Your task to perform on an android device: toggle pop-ups in chrome Image 0: 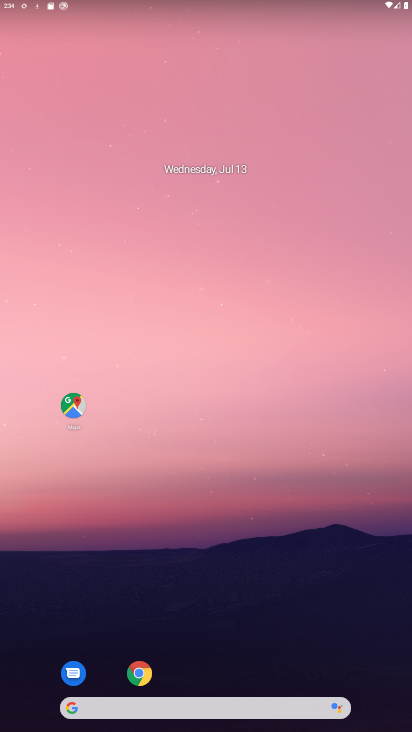
Step 0: click (150, 684)
Your task to perform on an android device: toggle pop-ups in chrome Image 1: 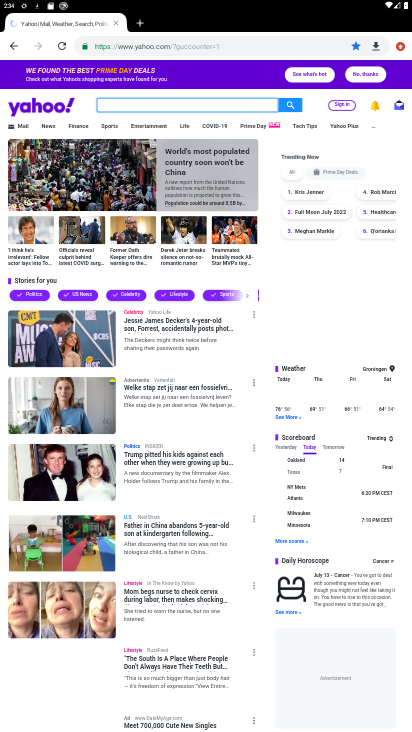
Step 1: drag from (397, 46) to (346, 326)
Your task to perform on an android device: toggle pop-ups in chrome Image 2: 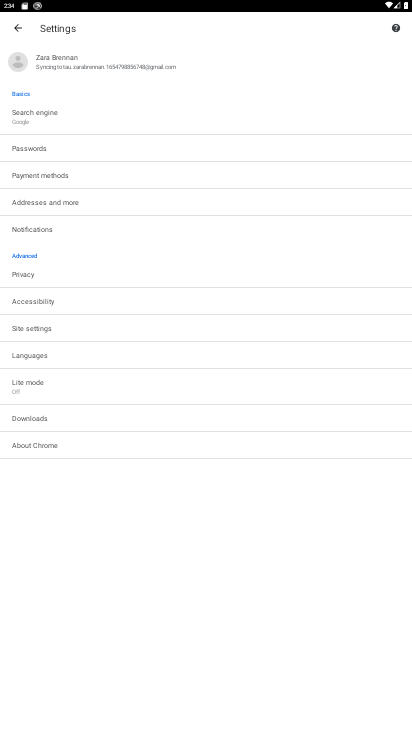
Step 2: click (74, 322)
Your task to perform on an android device: toggle pop-ups in chrome Image 3: 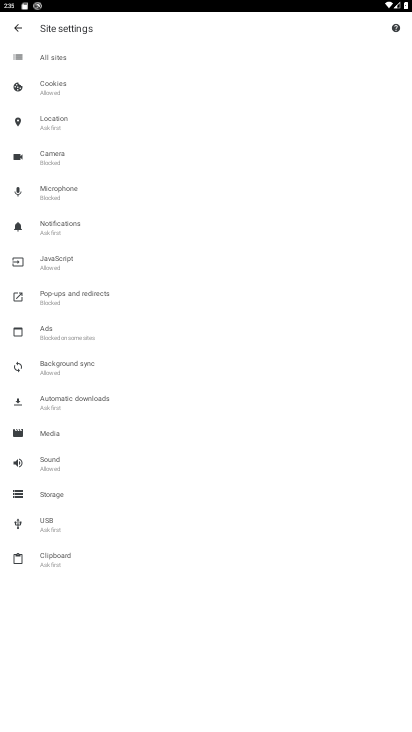
Step 3: click (125, 304)
Your task to perform on an android device: toggle pop-ups in chrome Image 4: 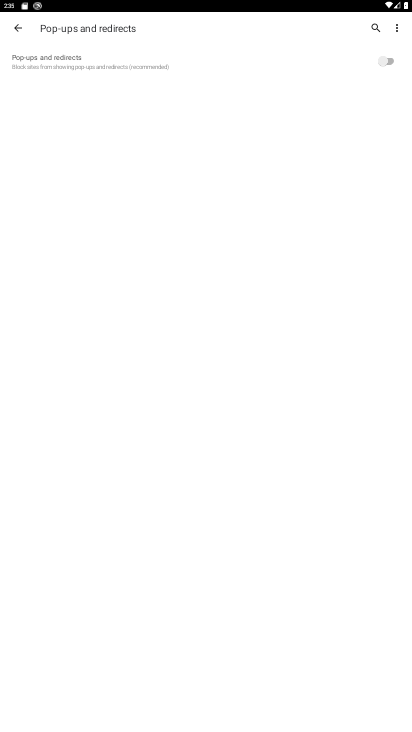
Step 4: click (392, 59)
Your task to perform on an android device: toggle pop-ups in chrome Image 5: 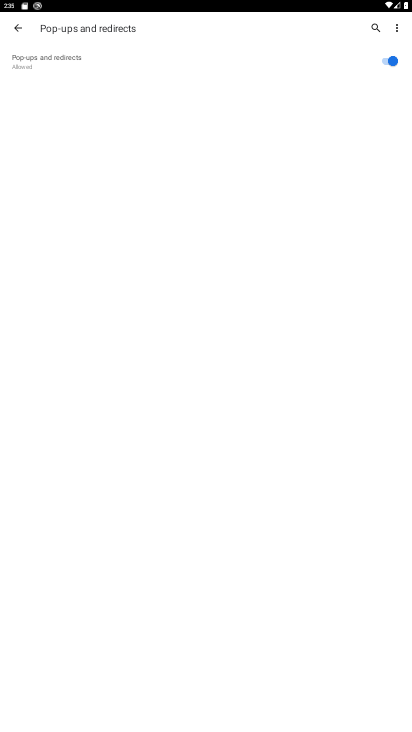
Step 5: task complete